Your task to perform on an android device: Check the weather Image 0: 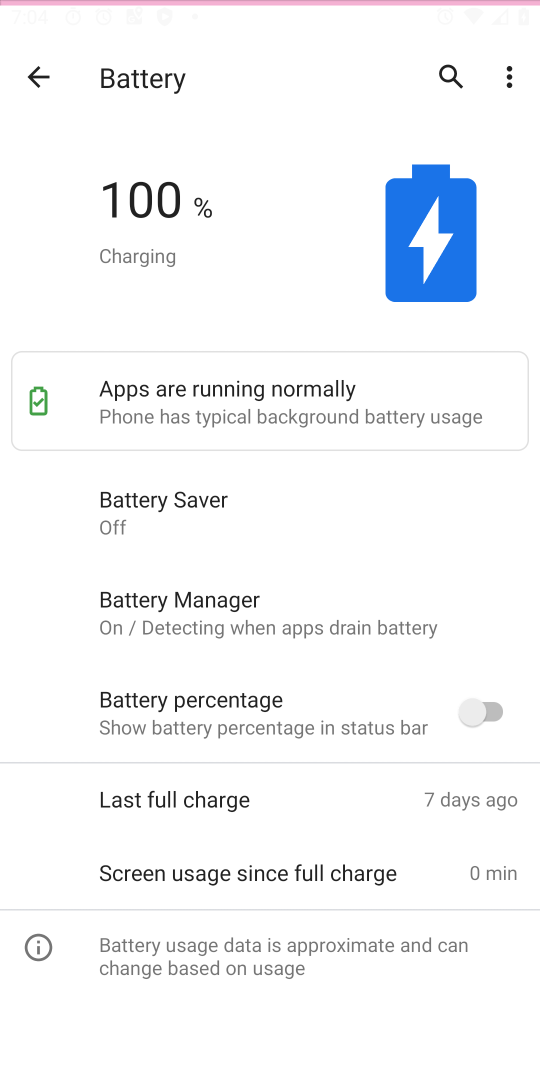
Step 0: press home button
Your task to perform on an android device: Check the weather Image 1: 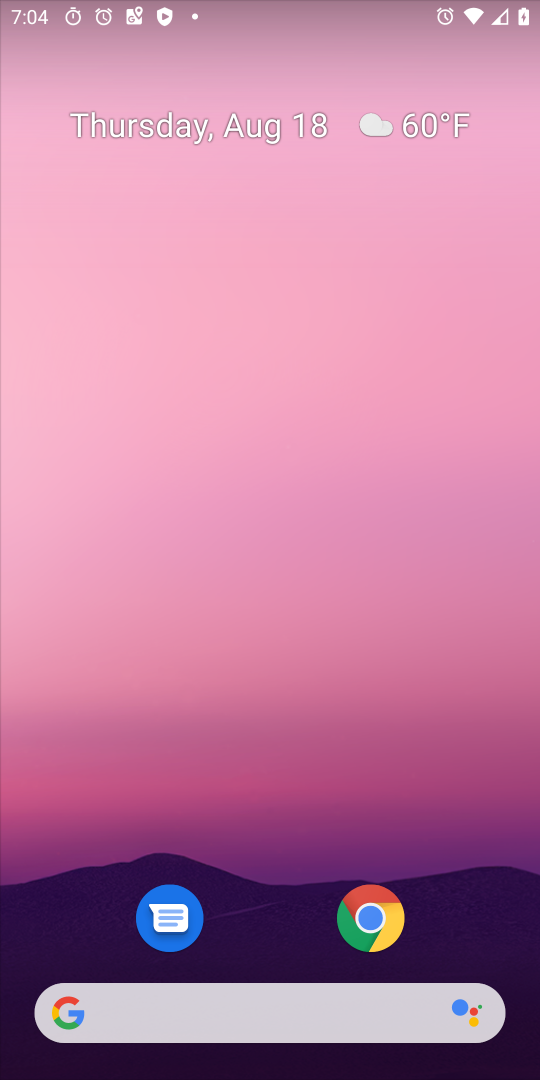
Step 1: click (54, 1026)
Your task to perform on an android device: Check the weather Image 2: 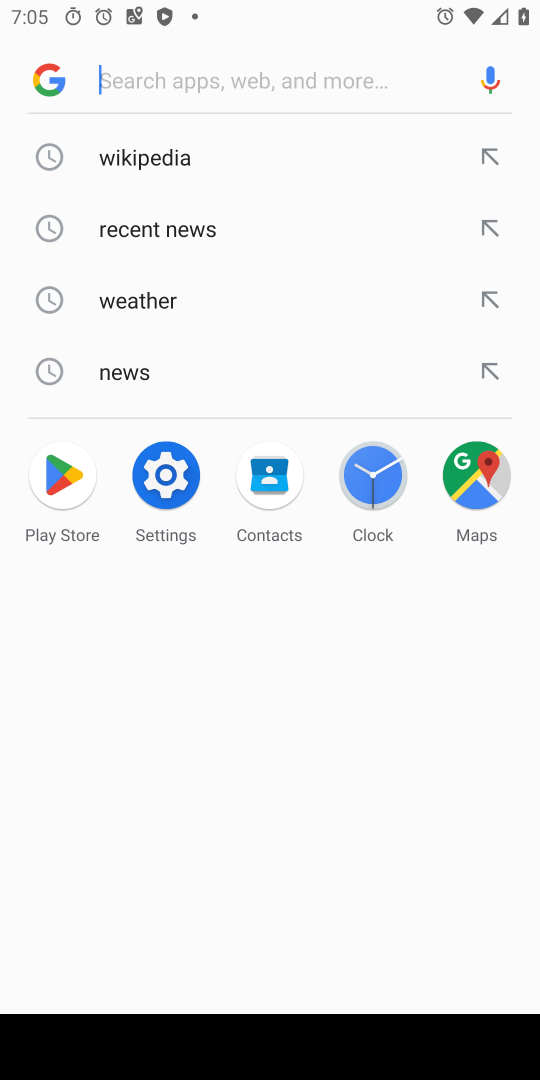
Step 2: click (140, 301)
Your task to perform on an android device: Check the weather Image 3: 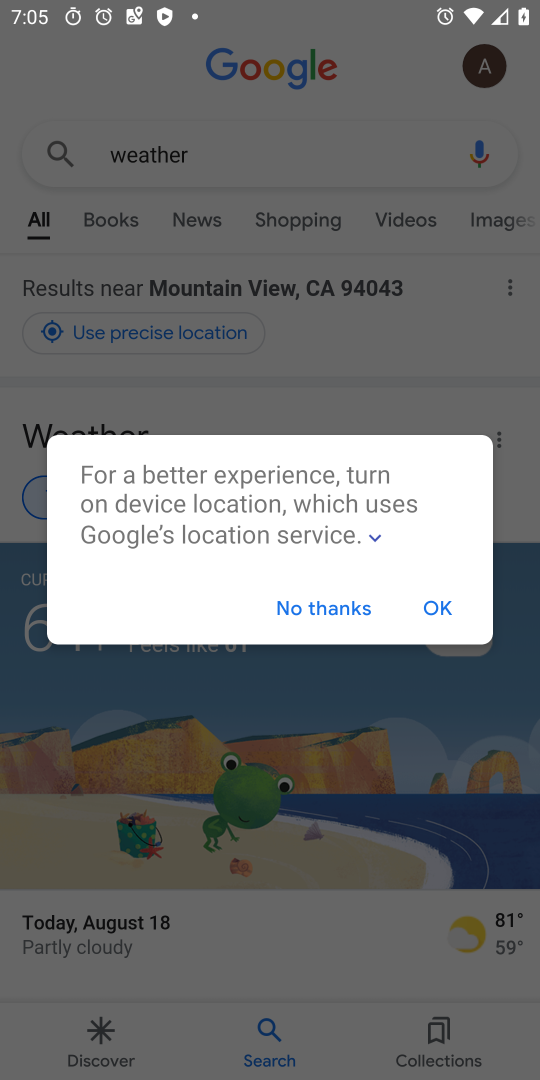
Step 3: task complete